Your task to perform on an android device: search for starred emails in the gmail app Image 0: 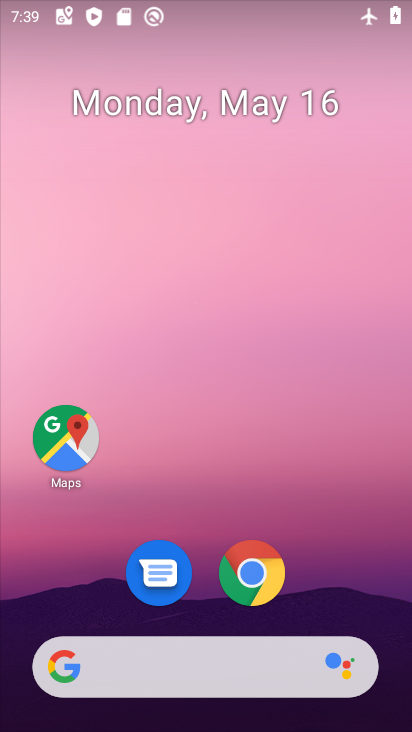
Step 0: drag from (363, 491) to (322, 27)
Your task to perform on an android device: search for starred emails in the gmail app Image 1: 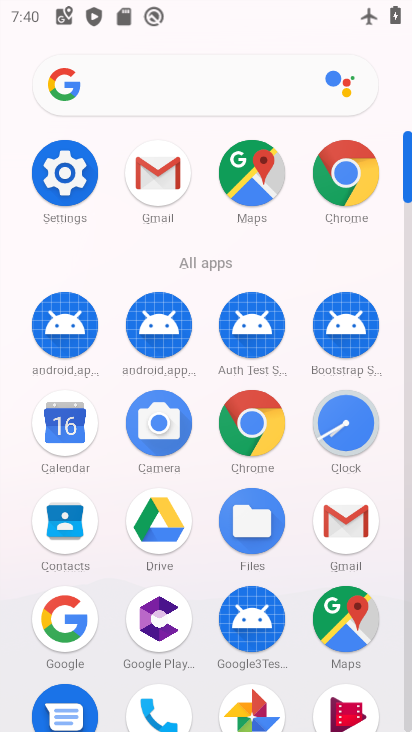
Step 1: click (158, 179)
Your task to perform on an android device: search for starred emails in the gmail app Image 2: 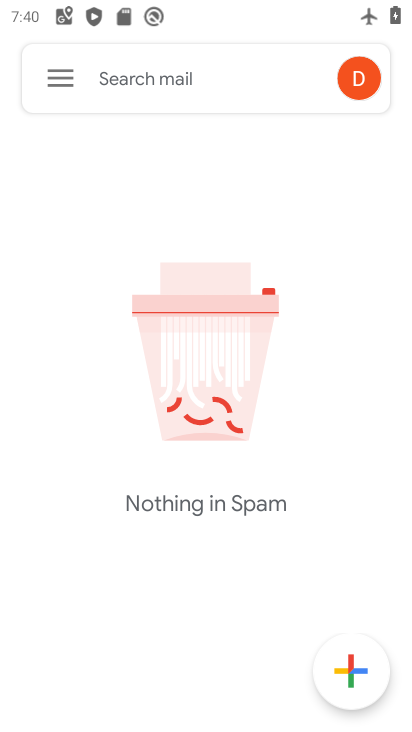
Step 2: click (78, 95)
Your task to perform on an android device: search for starred emails in the gmail app Image 3: 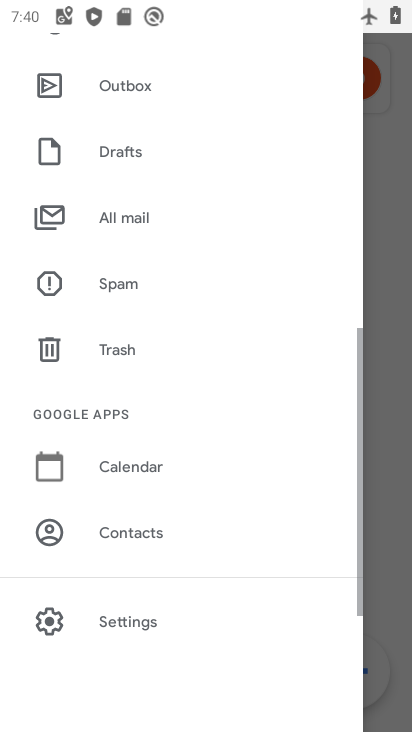
Step 3: drag from (122, 205) to (210, 600)
Your task to perform on an android device: search for starred emails in the gmail app Image 4: 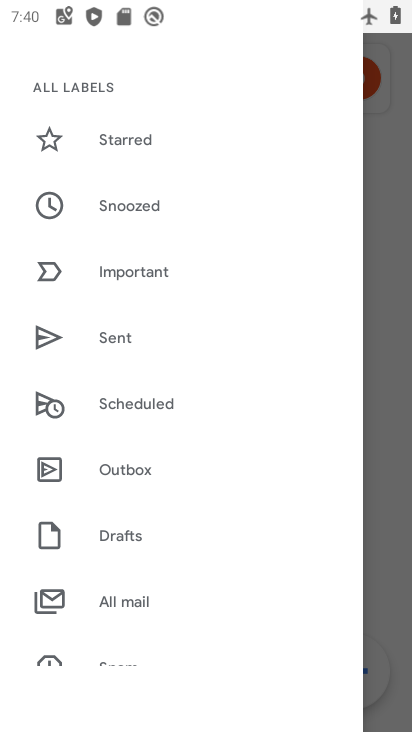
Step 4: click (116, 139)
Your task to perform on an android device: search for starred emails in the gmail app Image 5: 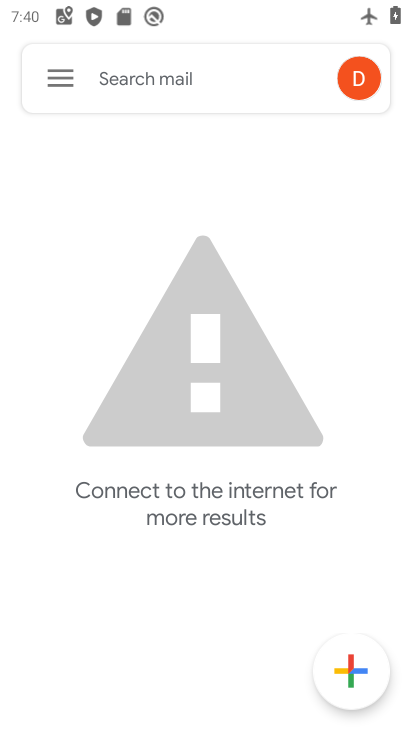
Step 5: click (51, 85)
Your task to perform on an android device: search for starred emails in the gmail app Image 6: 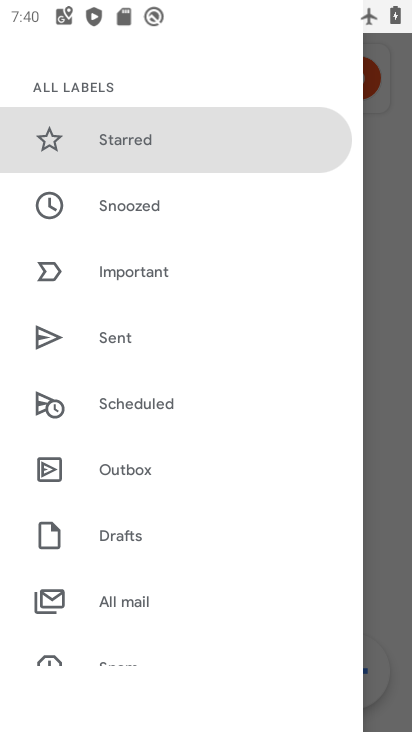
Step 6: click (138, 147)
Your task to perform on an android device: search for starred emails in the gmail app Image 7: 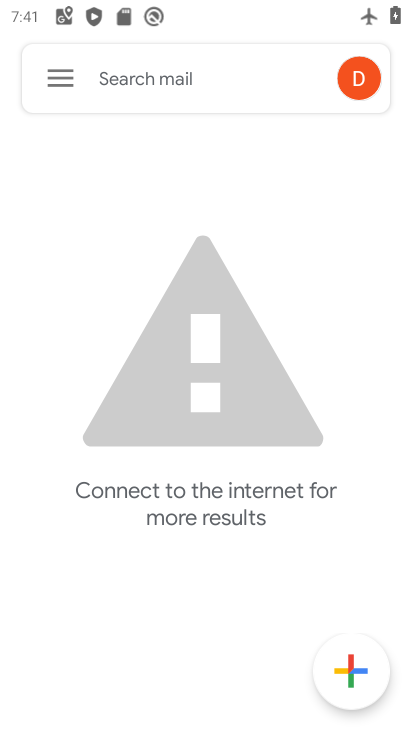
Step 7: task complete